Your task to perform on an android device: delete a single message in the gmail app Image 0: 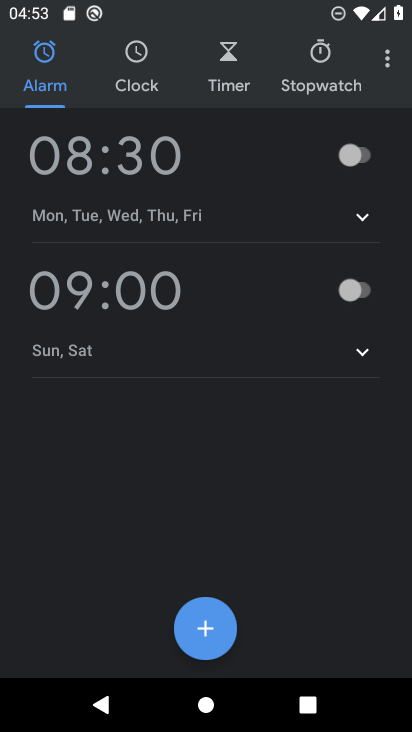
Step 0: press home button
Your task to perform on an android device: delete a single message in the gmail app Image 1: 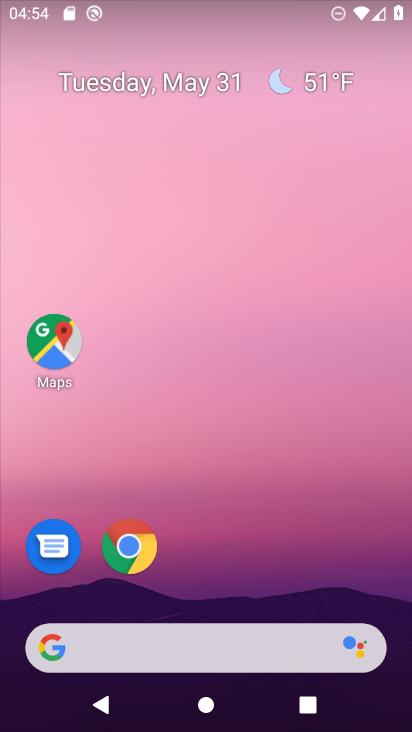
Step 1: drag from (245, 565) to (325, 101)
Your task to perform on an android device: delete a single message in the gmail app Image 2: 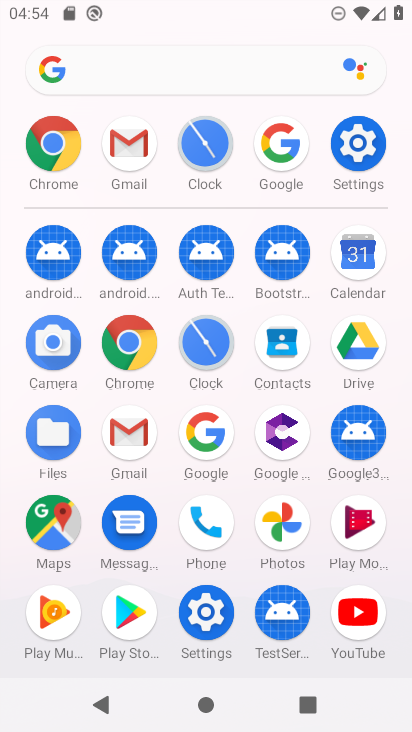
Step 2: click (131, 448)
Your task to perform on an android device: delete a single message in the gmail app Image 3: 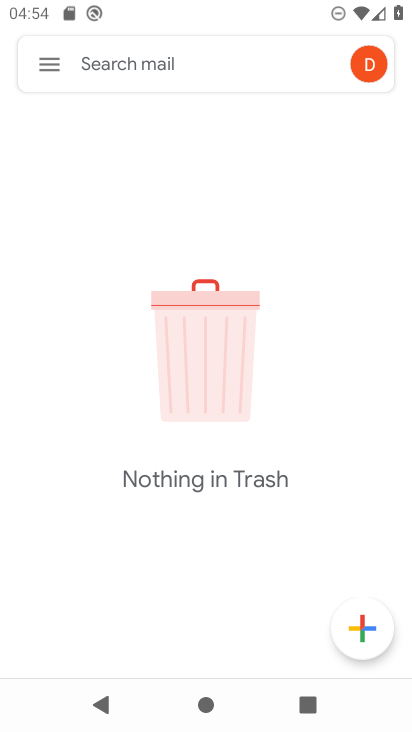
Step 3: click (45, 68)
Your task to perform on an android device: delete a single message in the gmail app Image 4: 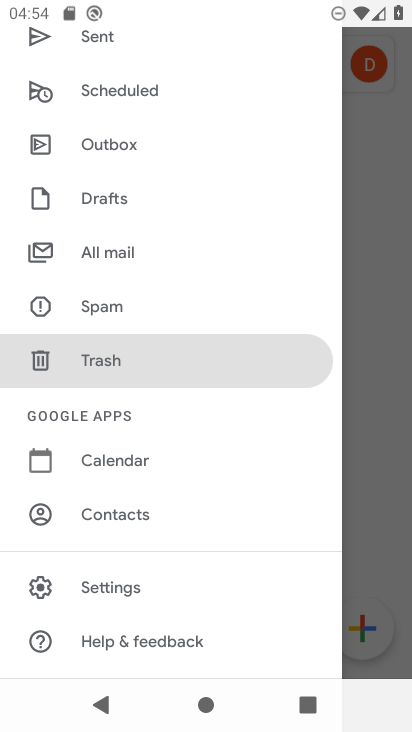
Step 4: click (116, 258)
Your task to perform on an android device: delete a single message in the gmail app Image 5: 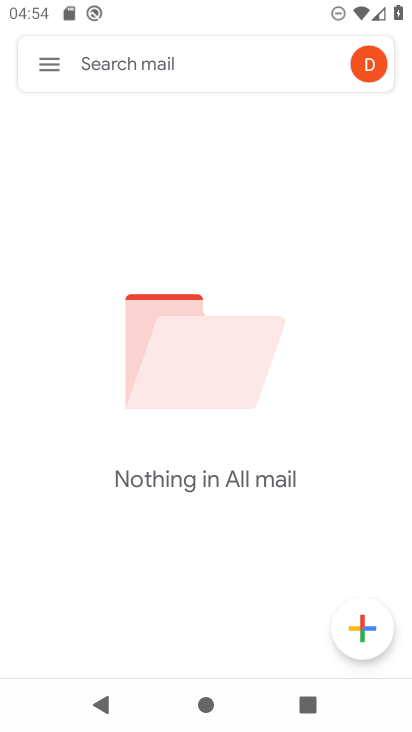
Step 5: task complete